Your task to perform on an android device: turn off picture-in-picture Image 0: 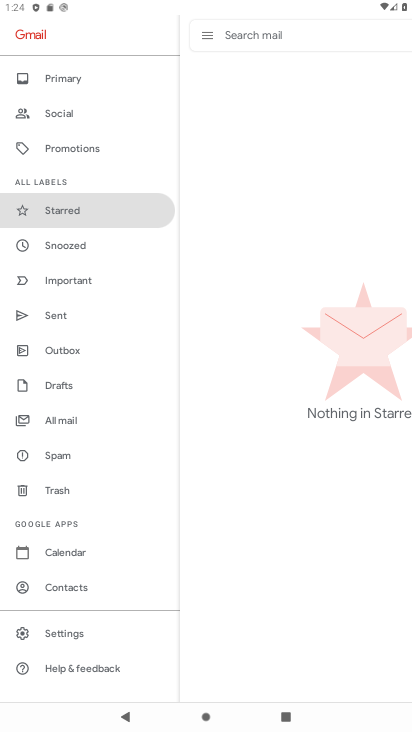
Step 0: press home button
Your task to perform on an android device: turn off picture-in-picture Image 1: 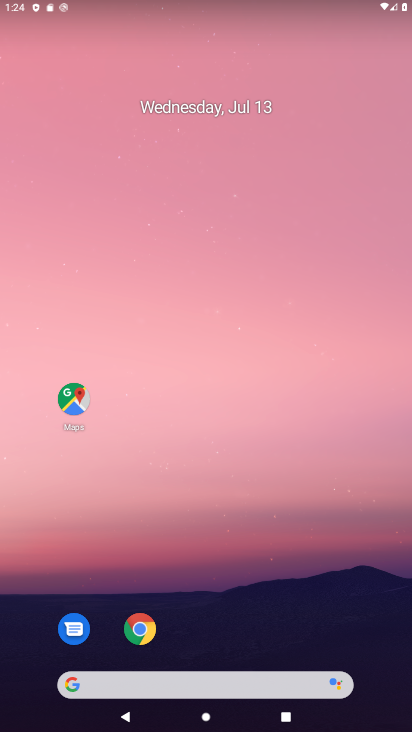
Step 1: drag from (267, 645) to (223, 153)
Your task to perform on an android device: turn off picture-in-picture Image 2: 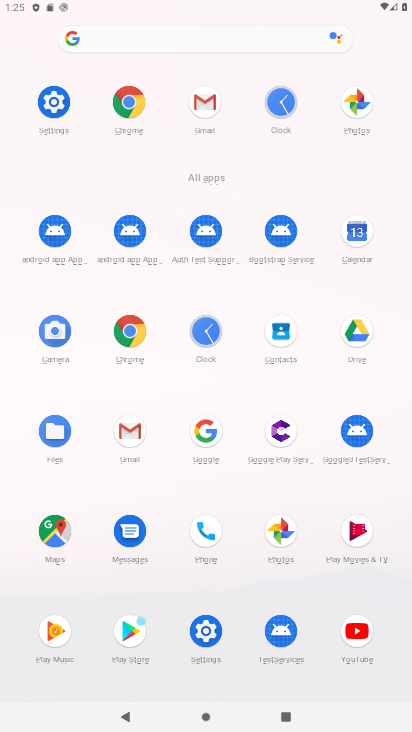
Step 2: click (45, 102)
Your task to perform on an android device: turn off picture-in-picture Image 3: 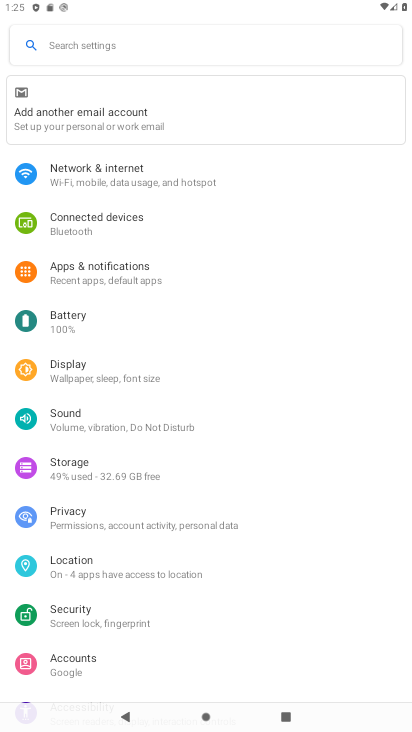
Step 3: click (107, 289)
Your task to perform on an android device: turn off picture-in-picture Image 4: 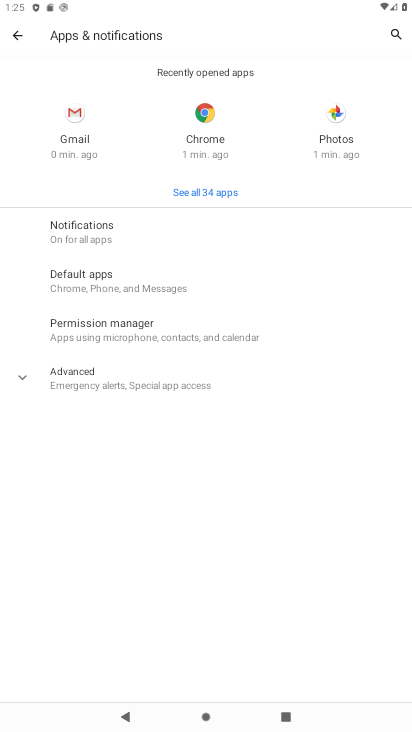
Step 4: click (122, 385)
Your task to perform on an android device: turn off picture-in-picture Image 5: 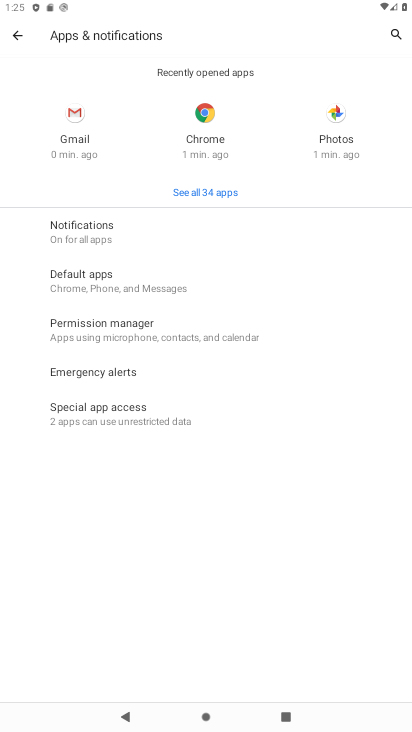
Step 5: click (121, 216)
Your task to perform on an android device: turn off picture-in-picture Image 6: 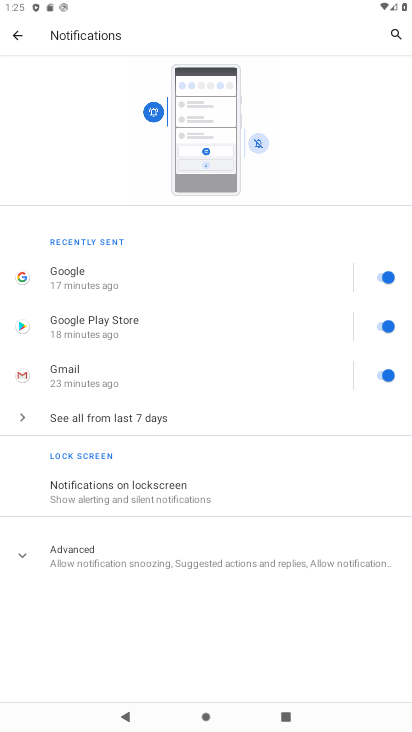
Step 6: click (122, 541)
Your task to perform on an android device: turn off picture-in-picture Image 7: 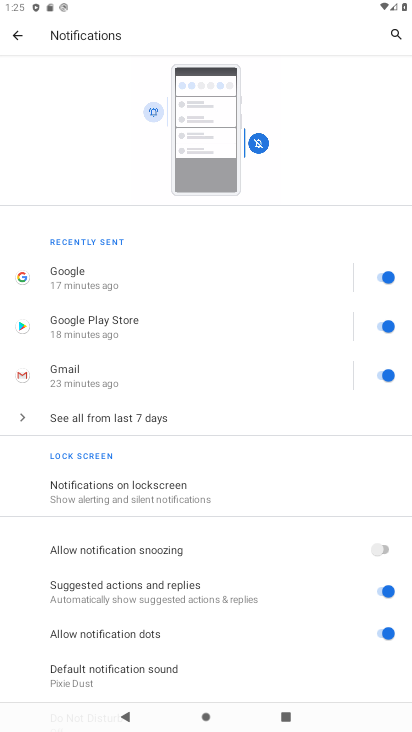
Step 7: click (364, 625)
Your task to perform on an android device: turn off picture-in-picture Image 8: 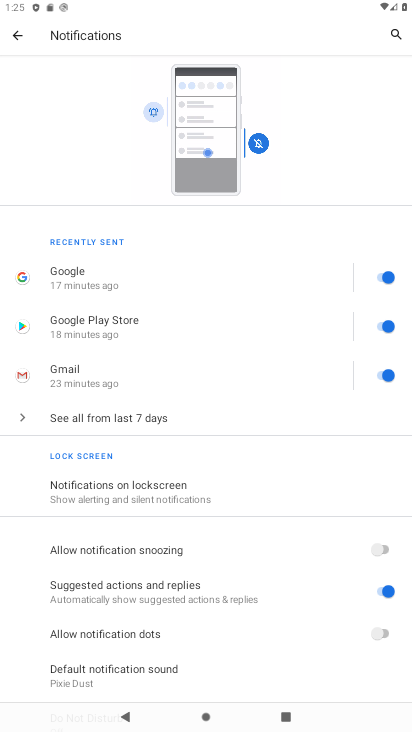
Step 8: task complete